Your task to perform on an android device: allow cookies in the chrome app Image 0: 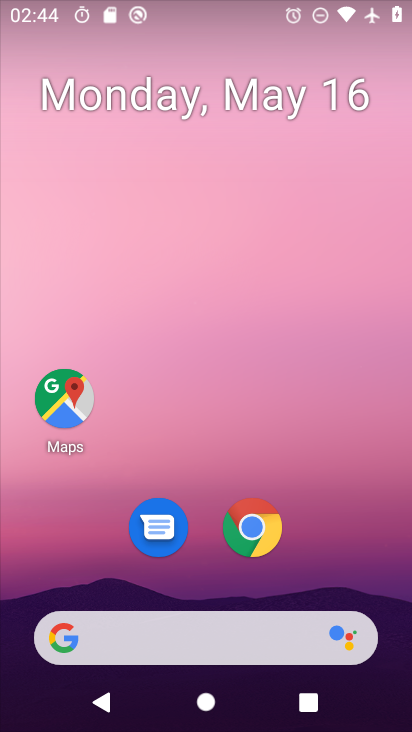
Step 0: press home button
Your task to perform on an android device: allow cookies in the chrome app Image 1: 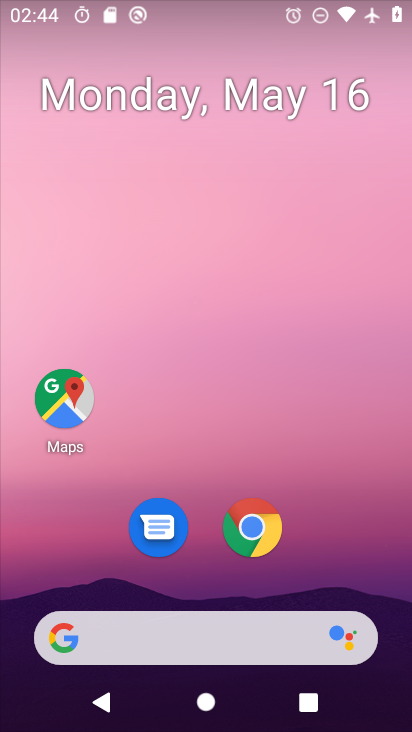
Step 1: drag from (131, 646) to (263, 154)
Your task to perform on an android device: allow cookies in the chrome app Image 2: 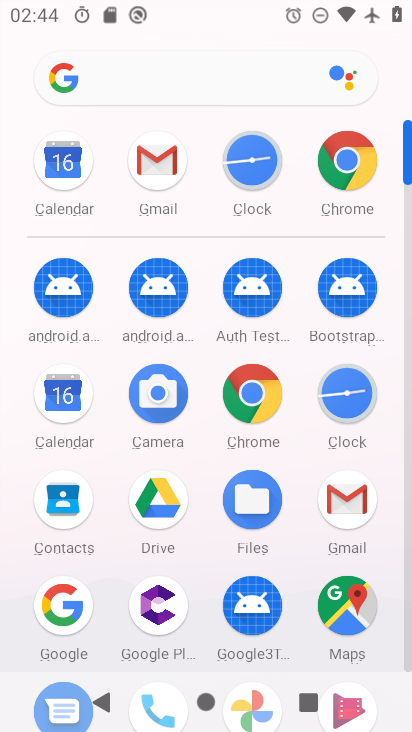
Step 2: click (348, 172)
Your task to perform on an android device: allow cookies in the chrome app Image 3: 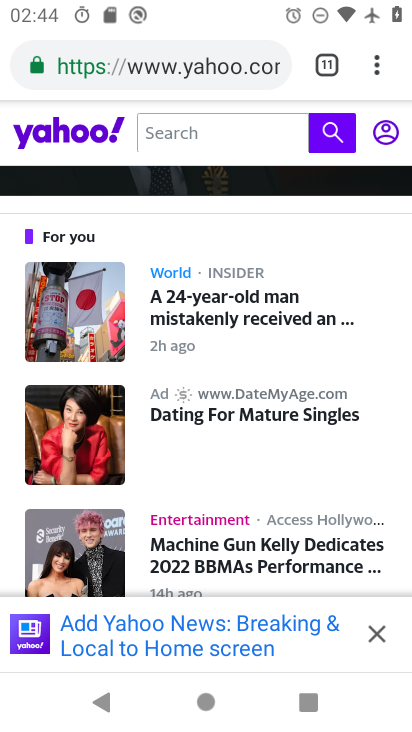
Step 3: drag from (377, 66) to (192, 577)
Your task to perform on an android device: allow cookies in the chrome app Image 4: 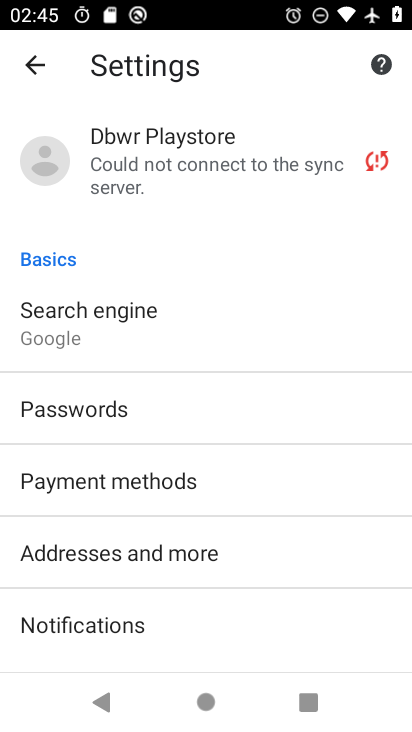
Step 4: drag from (189, 568) to (362, 219)
Your task to perform on an android device: allow cookies in the chrome app Image 5: 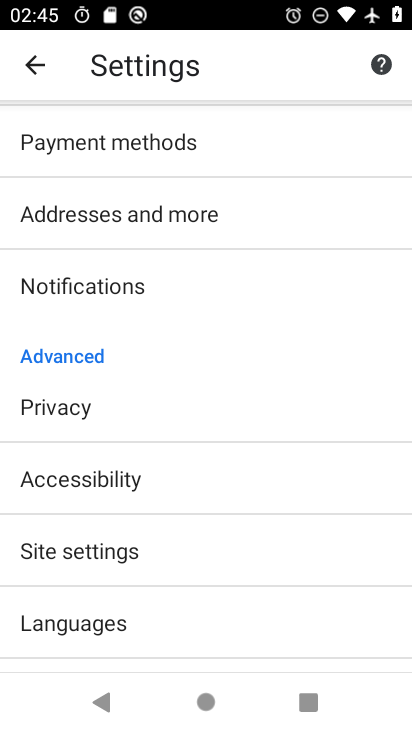
Step 5: click (139, 543)
Your task to perform on an android device: allow cookies in the chrome app Image 6: 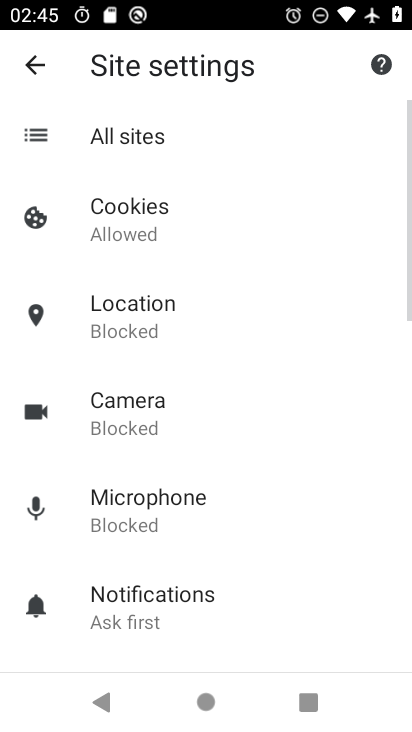
Step 6: click (167, 207)
Your task to perform on an android device: allow cookies in the chrome app Image 7: 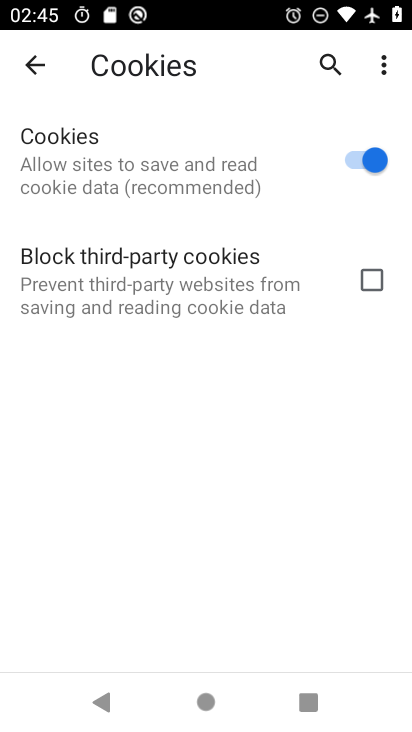
Step 7: task complete